Your task to perform on an android device: Google the capital of Argentina Image 0: 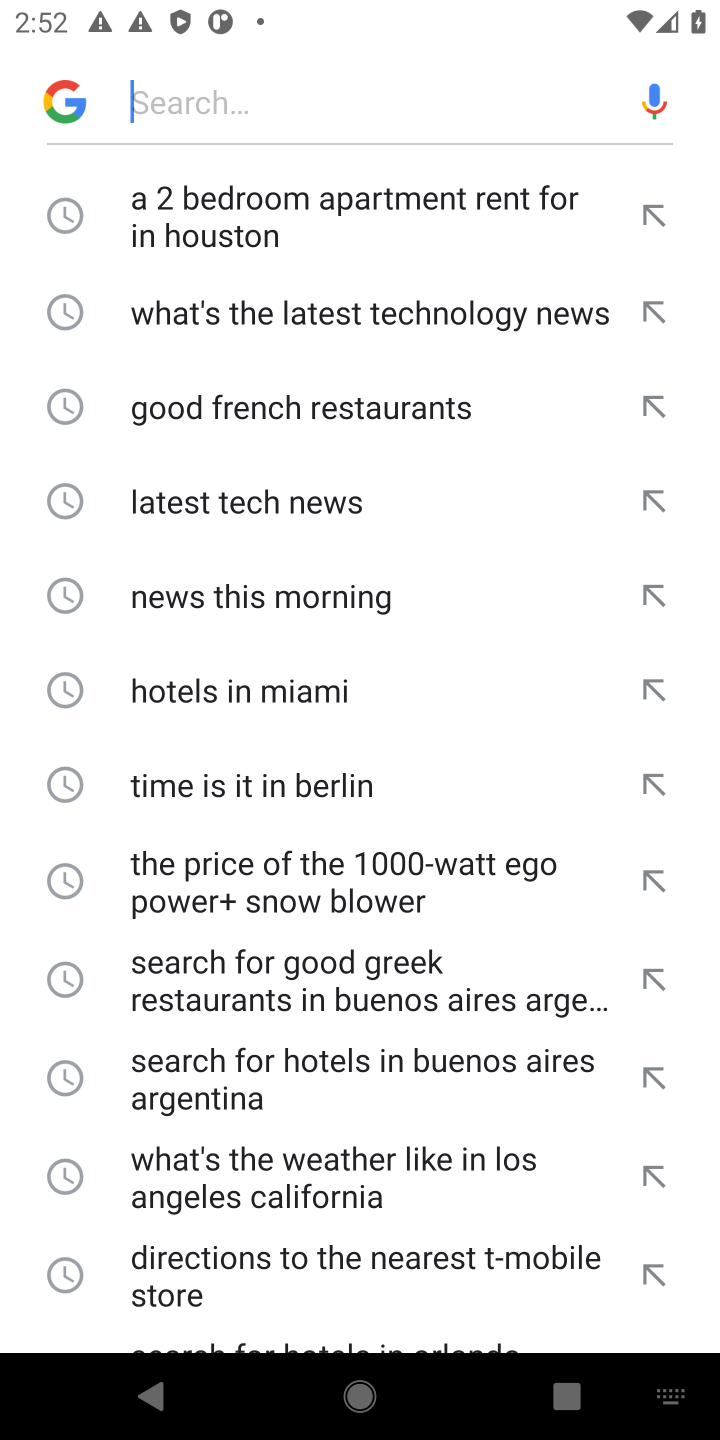
Step 0: press home button
Your task to perform on an android device: Google the capital of Argentina Image 1: 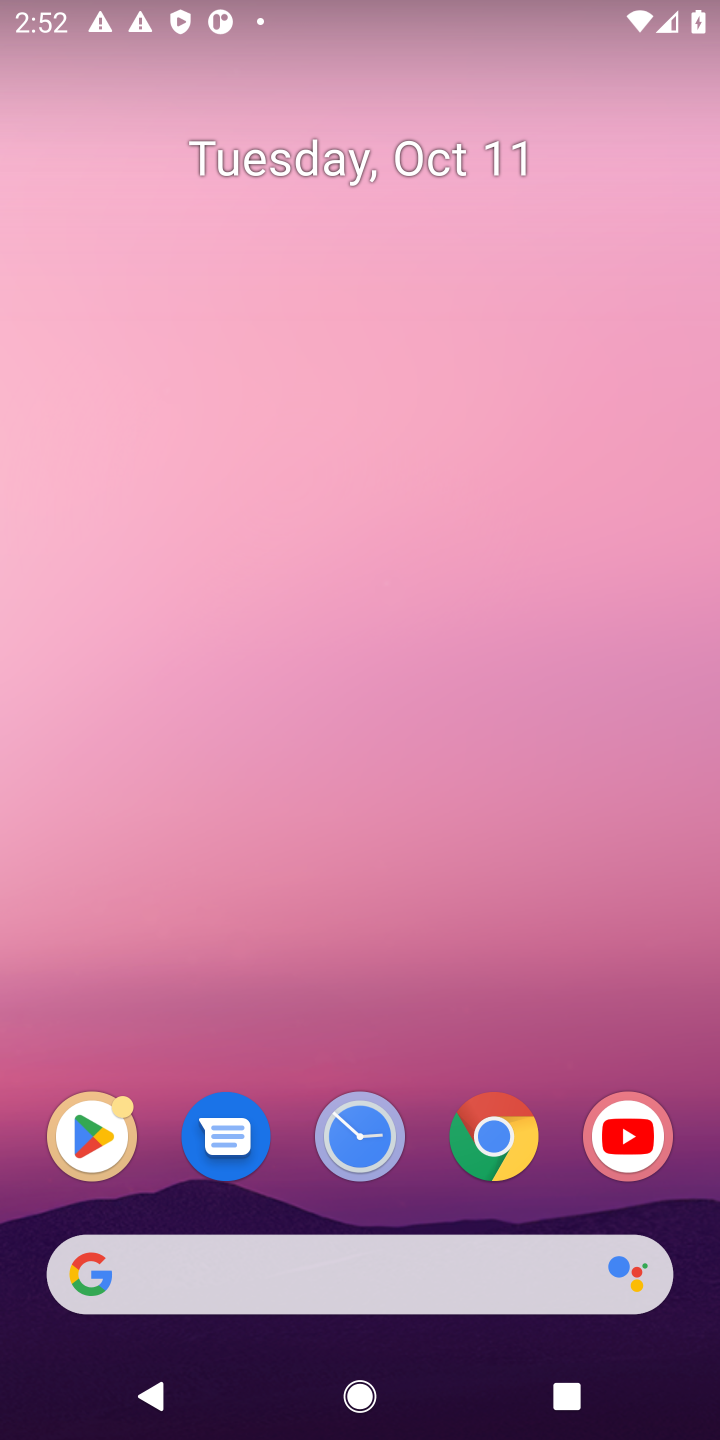
Step 1: click (501, 1133)
Your task to perform on an android device: Google the capital of Argentina Image 2: 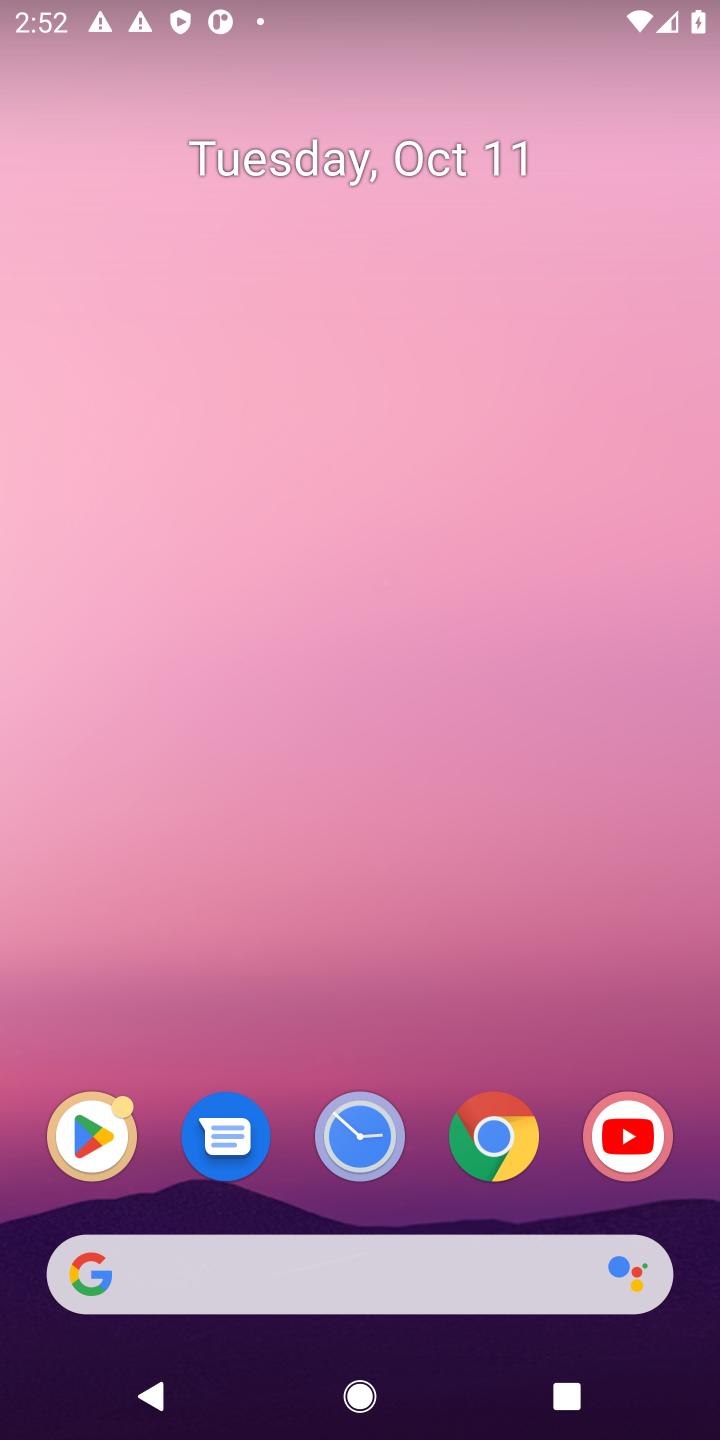
Step 2: click (501, 1137)
Your task to perform on an android device: Google the capital of Argentina Image 3: 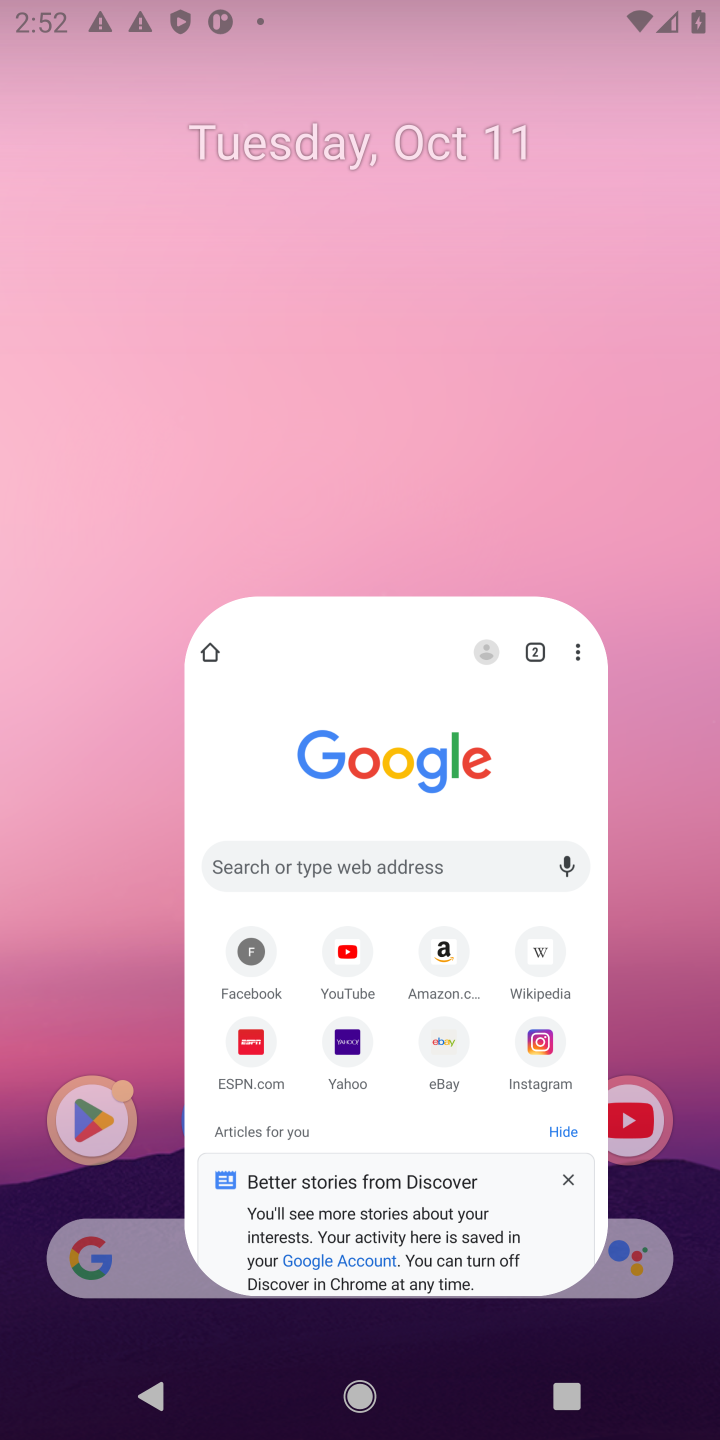
Step 3: click (501, 1137)
Your task to perform on an android device: Google the capital of Argentina Image 4: 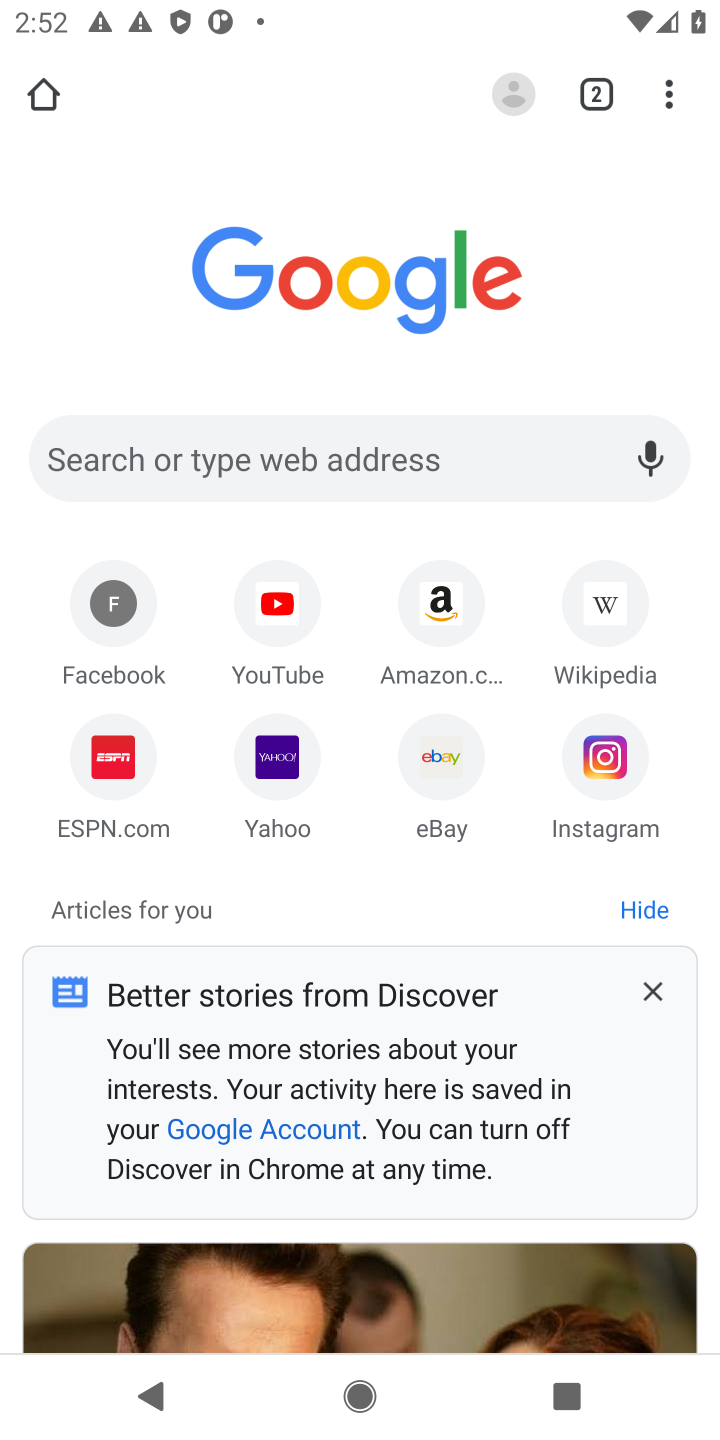
Step 4: click (371, 444)
Your task to perform on an android device: Google the capital of Argentina Image 5: 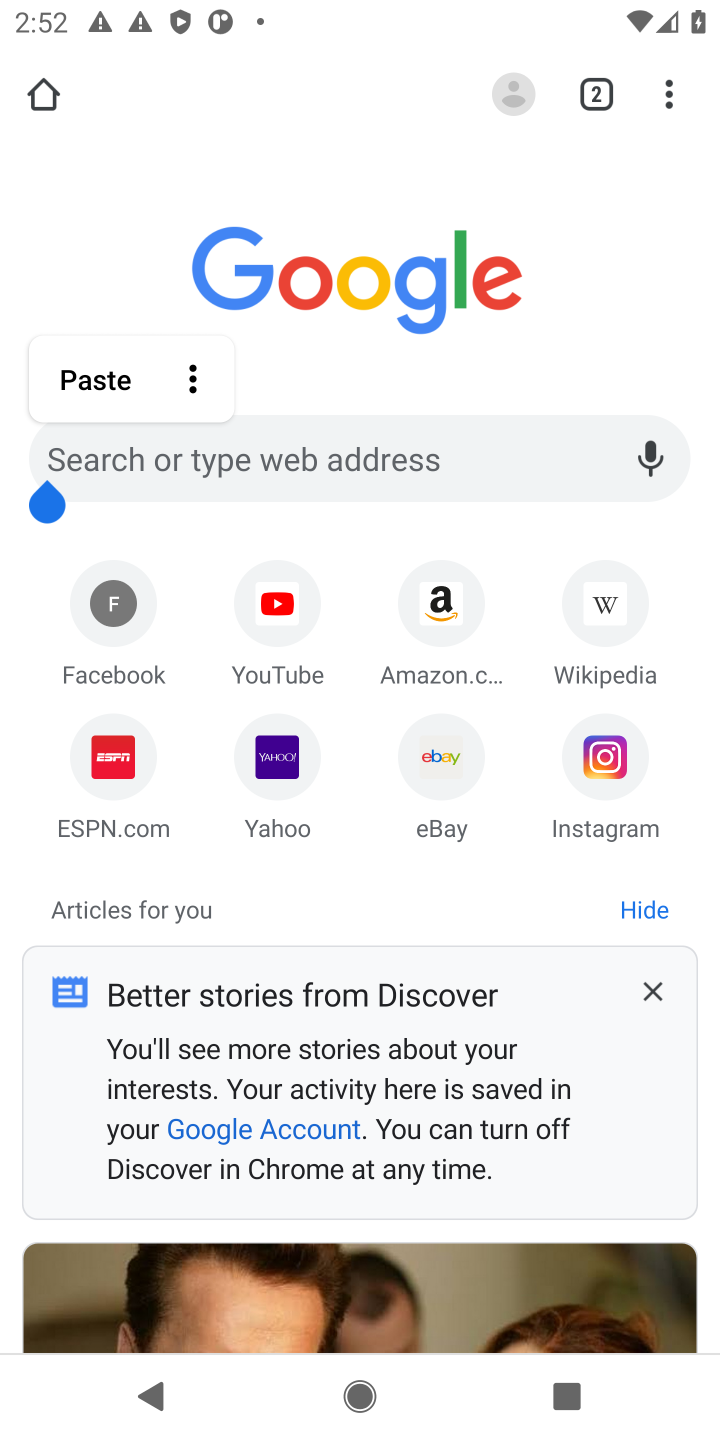
Step 5: click (192, 447)
Your task to perform on an android device: Google the capital of Argentina Image 6: 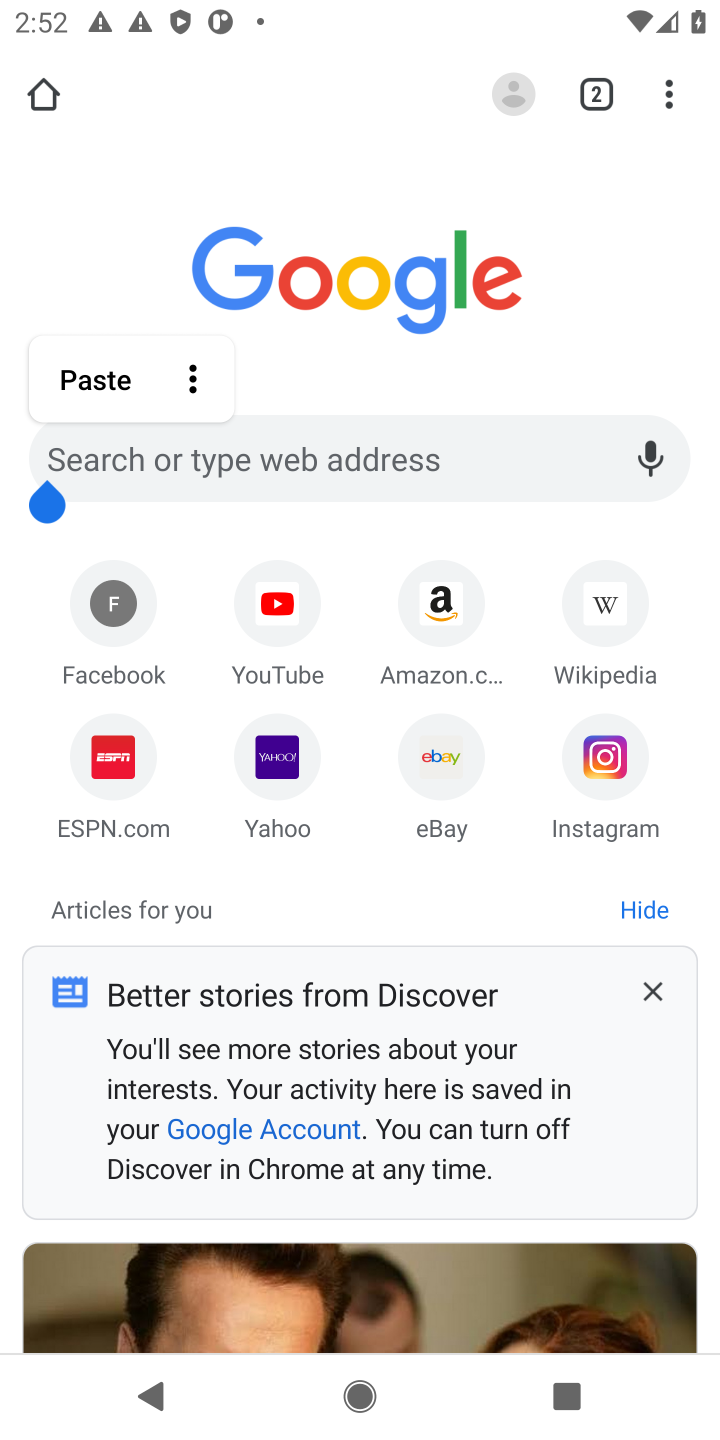
Step 6: click (137, 455)
Your task to perform on an android device: Google the capital of Argentina Image 7: 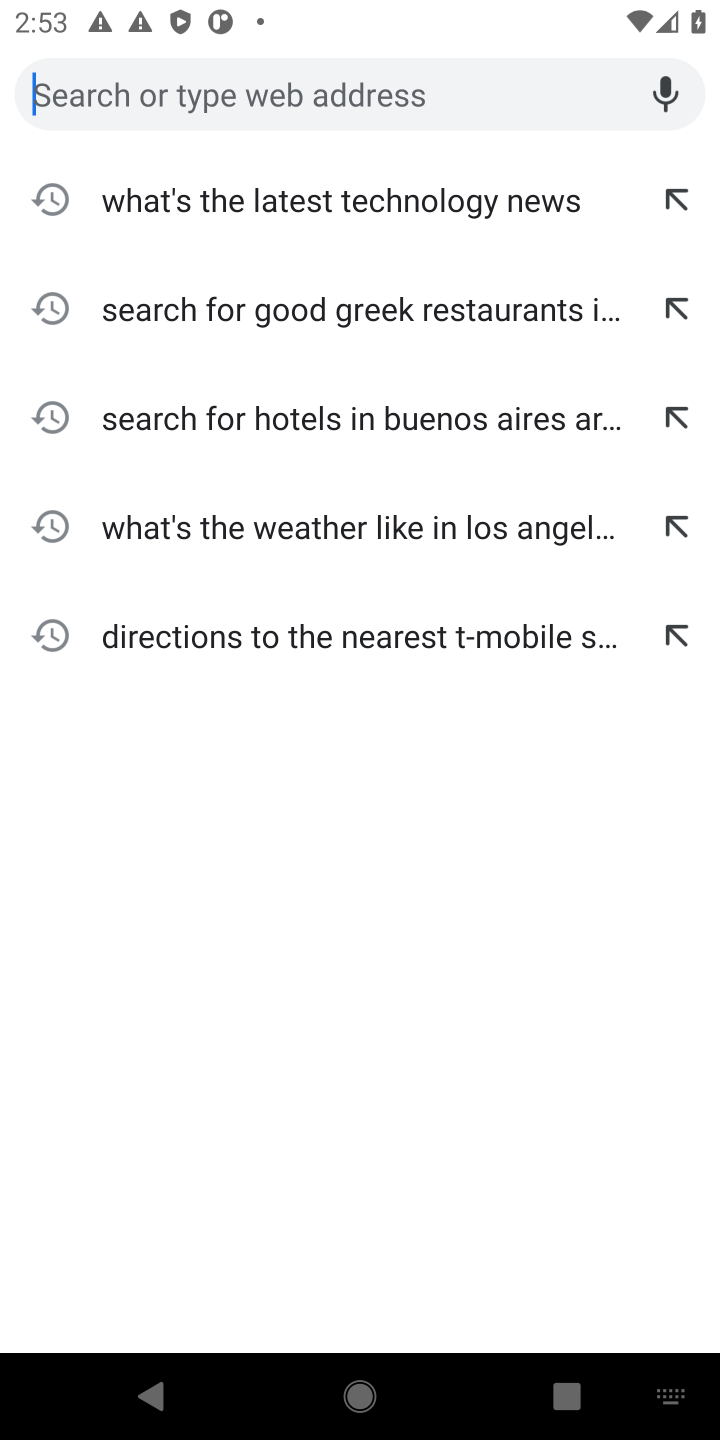
Step 7: type "capital of Argentina"
Your task to perform on an android device: Google the capital of Argentina Image 8: 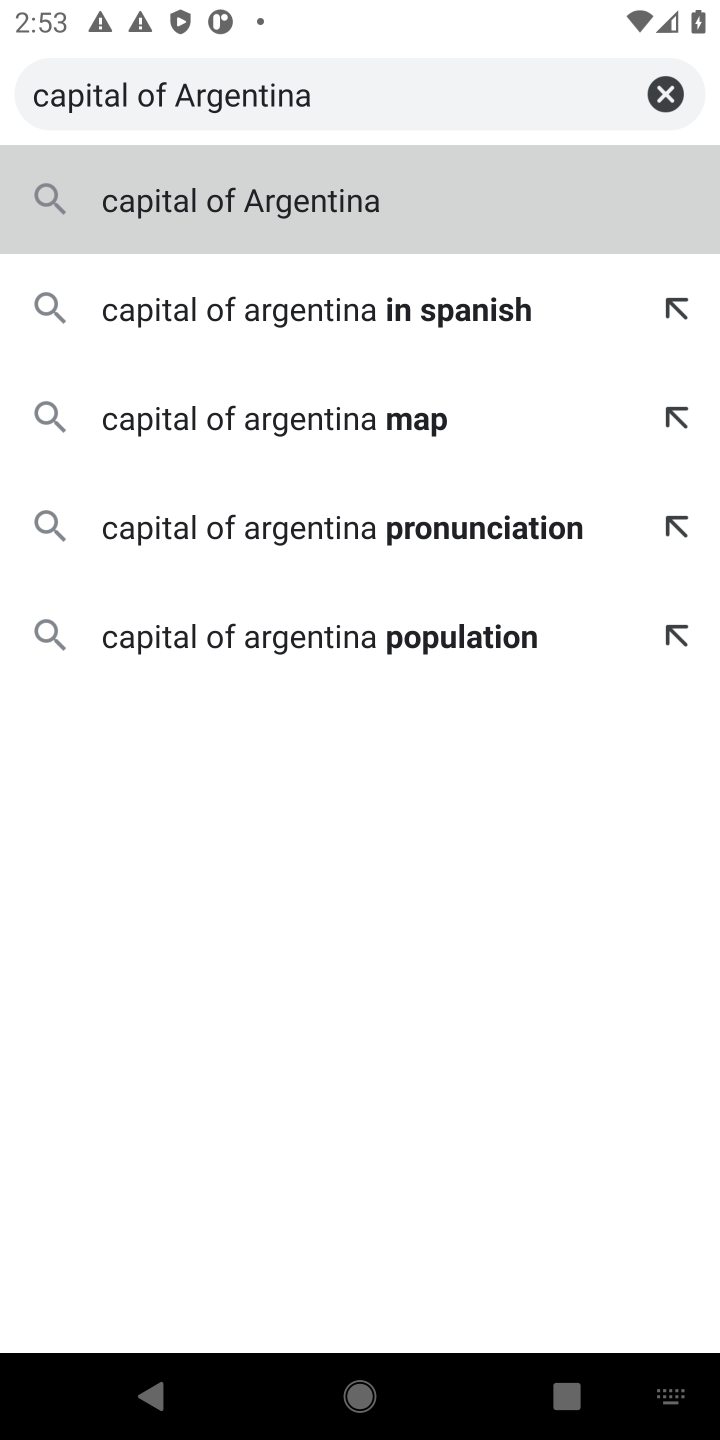
Step 8: press enter
Your task to perform on an android device: Google the capital of Argentina Image 9: 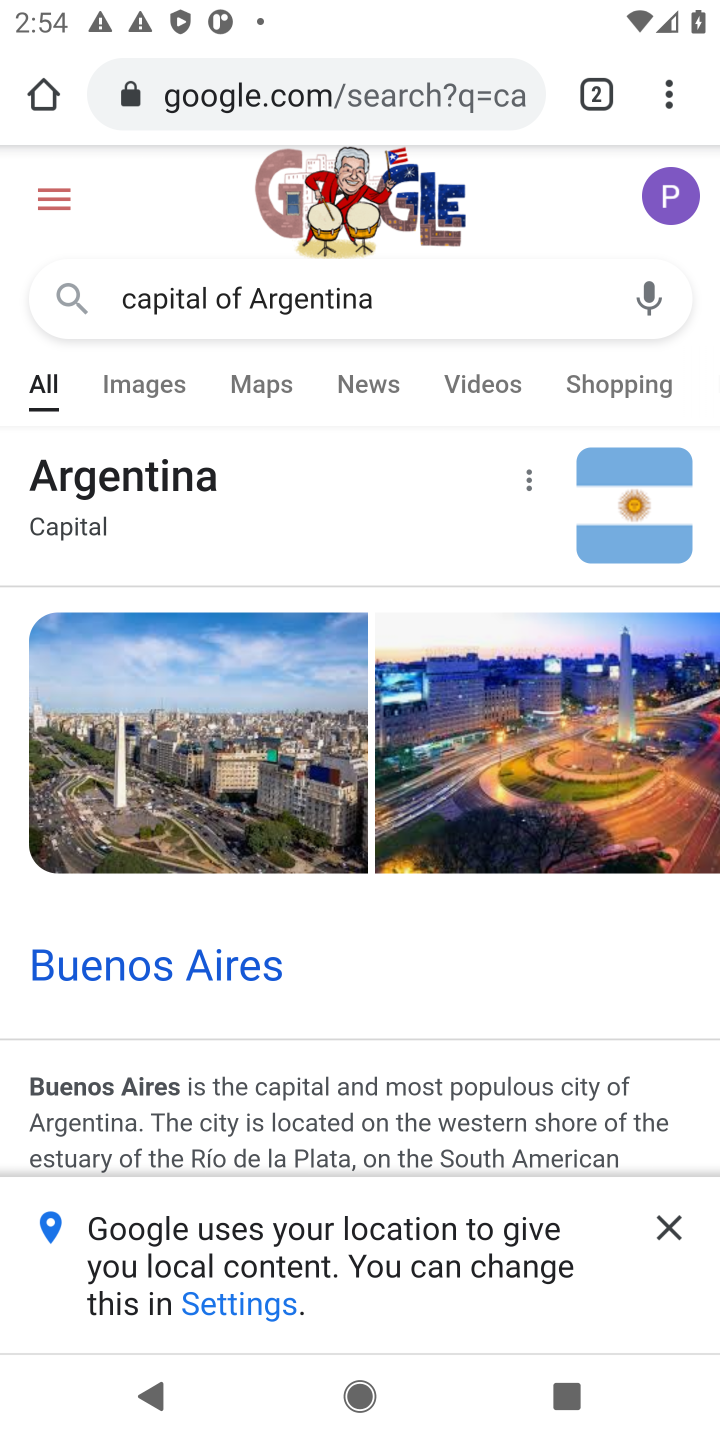
Step 9: drag from (263, 1103) to (477, 374)
Your task to perform on an android device: Google the capital of Argentina Image 10: 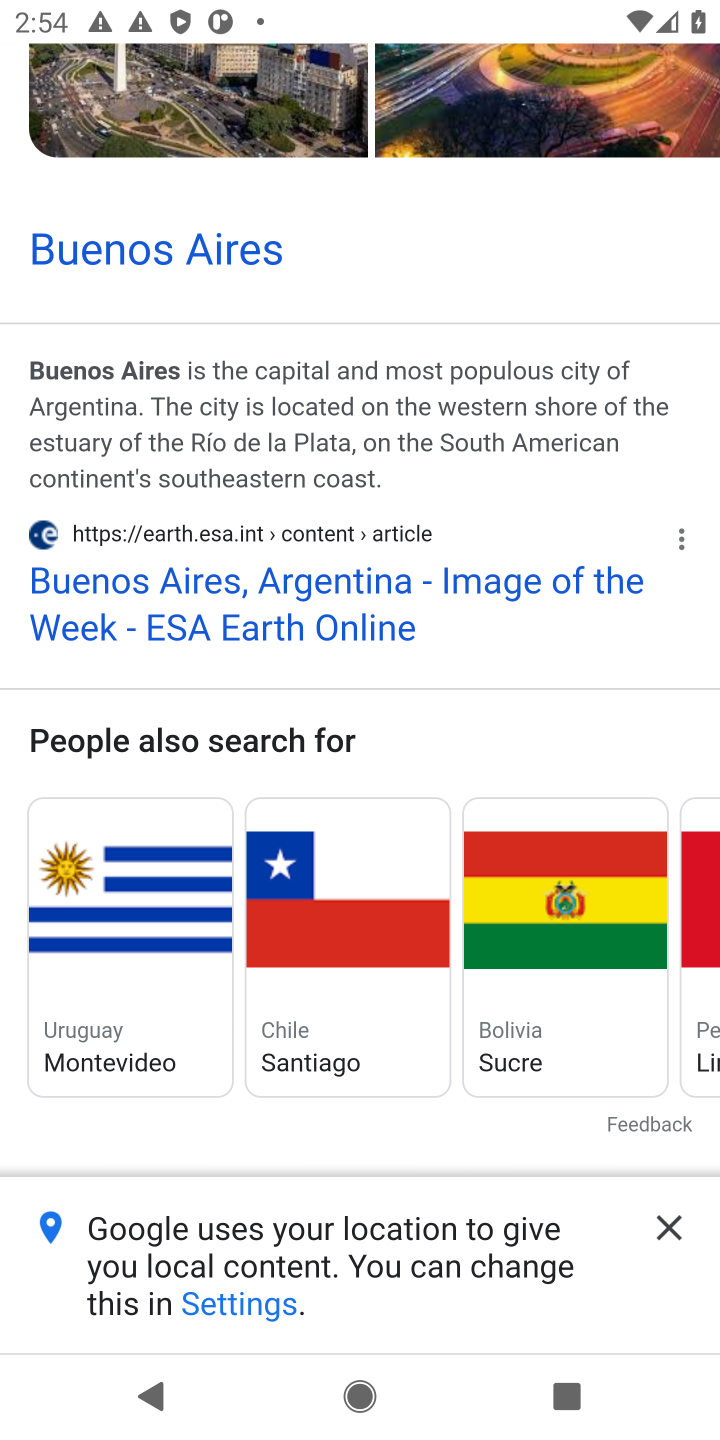
Step 10: click (670, 1224)
Your task to perform on an android device: Google the capital of Argentina Image 11: 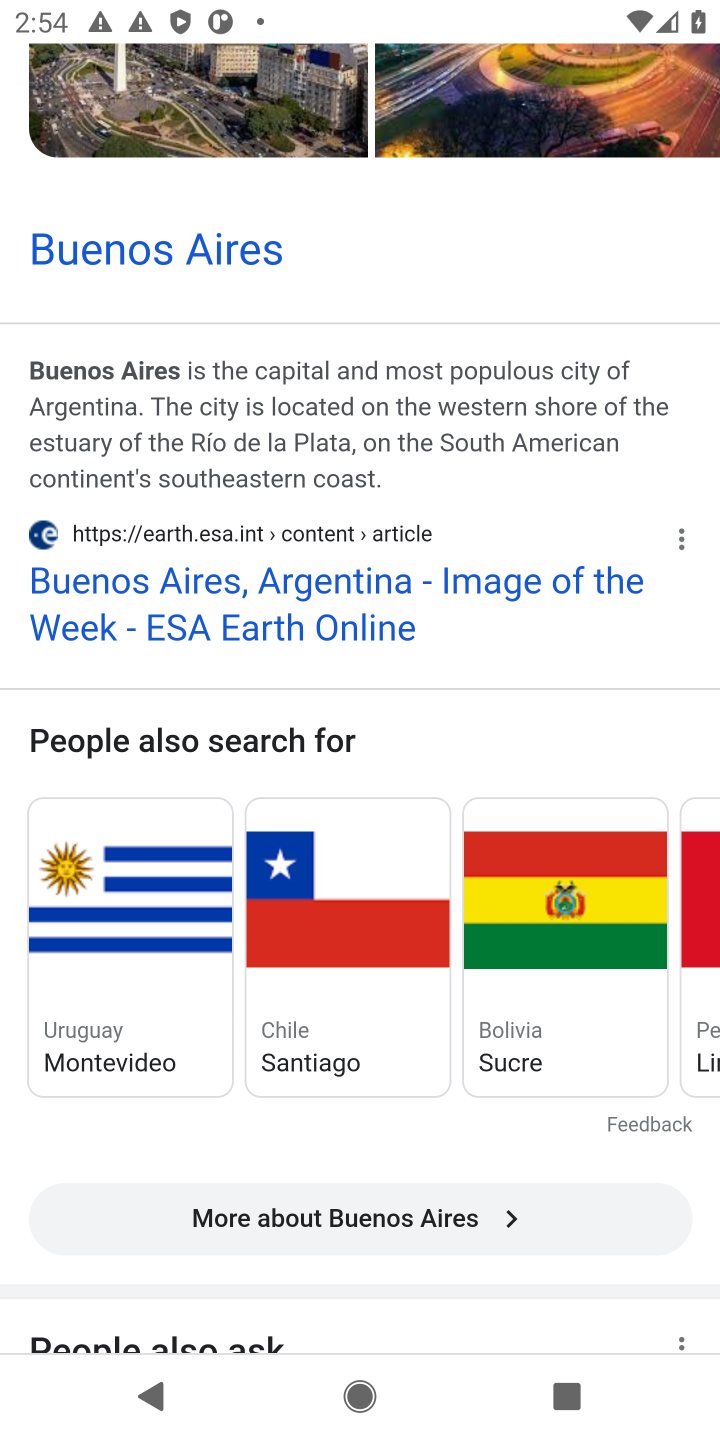
Step 11: task complete